Your task to perform on an android device: Open Google Chrome Image 0: 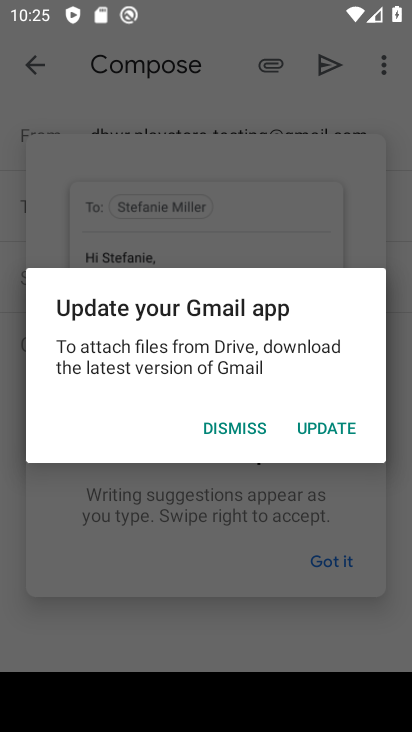
Step 0: click (249, 423)
Your task to perform on an android device: Open Google Chrome Image 1: 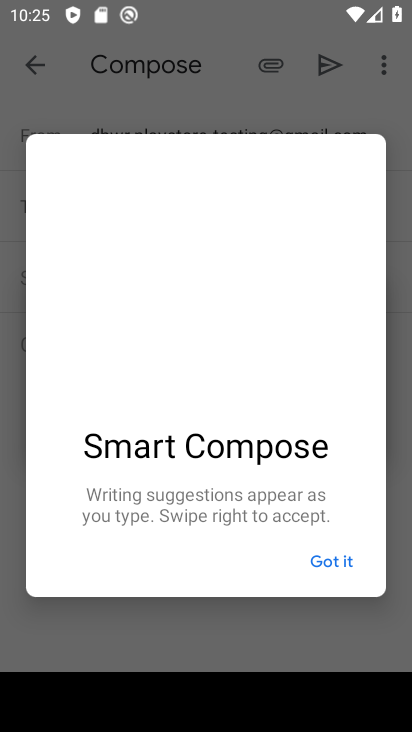
Step 1: click (322, 548)
Your task to perform on an android device: Open Google Chrome Image 2: 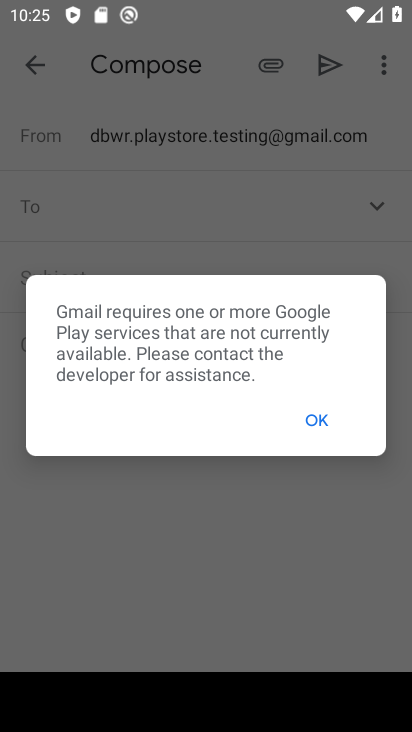
Step 2: click (306, 417)
Your task to perform on an android device: Open Google Chrome Image 3: 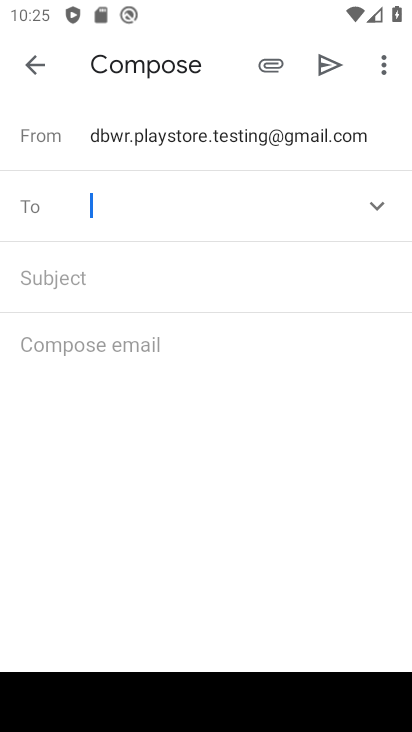
Step 3: click (22, 67)
Your task to perform on an android device: Open Google Chrome Image 4: 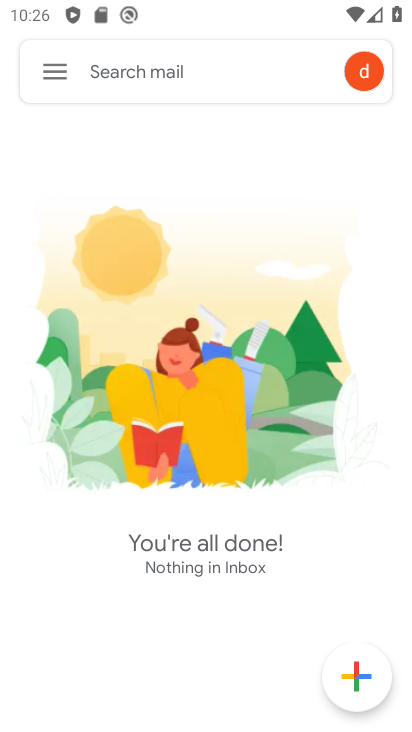
Step 4: press home button
Your task to perform on an android device: Open Google Chrome Image 5: 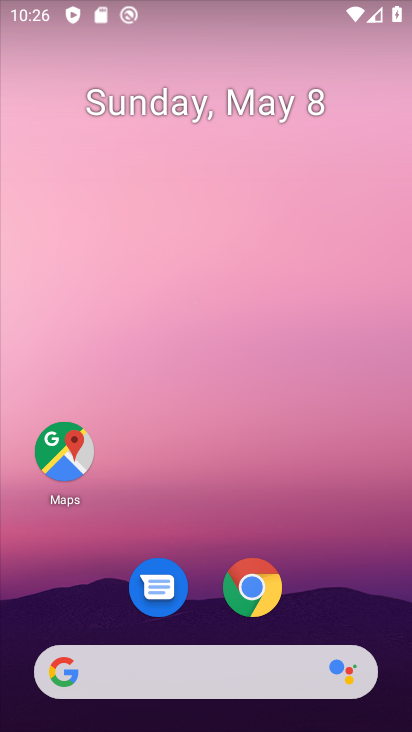
Step 5: drag from (236, 201) to (193, 101)
Your task to perform on an android device: Open Google Chrome Image 6: 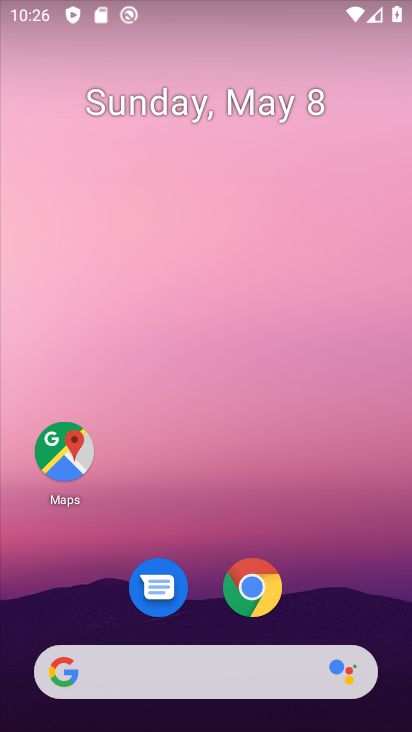
Step 6: drag from (332, 566) to (166, 0)
Your task to perform on an android device: Open Google Chrome Image 7: 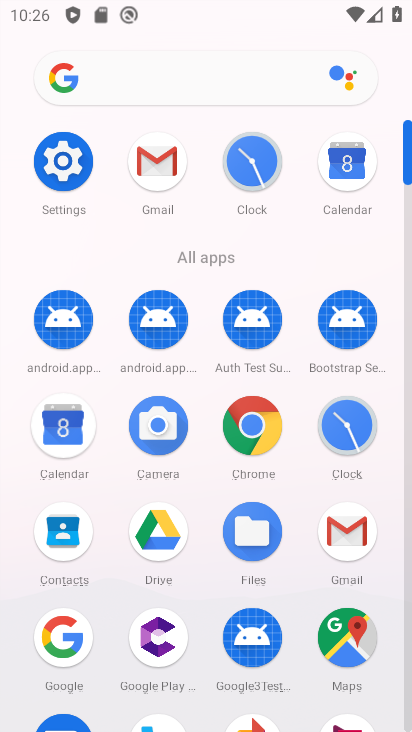
Step 7: click (55, 645)
Your task to perform on an android device: Open Google Chrome Image 8: 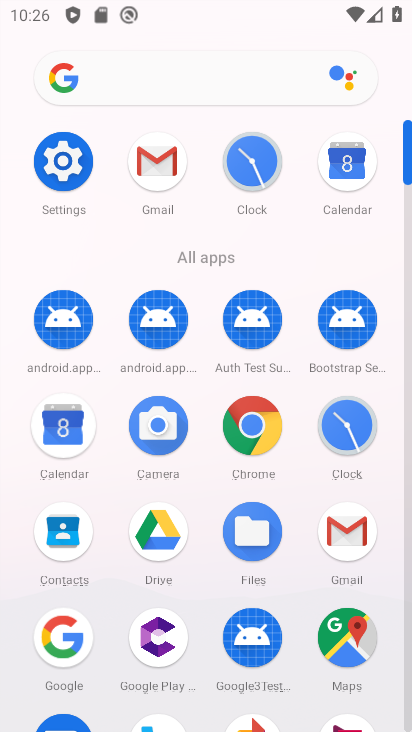
Step 8: click (56, 644)
Your task to perform on an android device: Open Google Chrome Image 9: 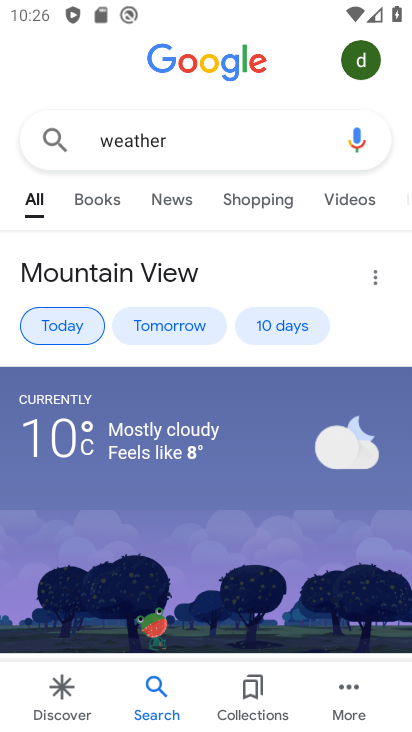
Step 9: click (344, 710)
Your task to perform on an android device: Open Google Chrome Image 10: 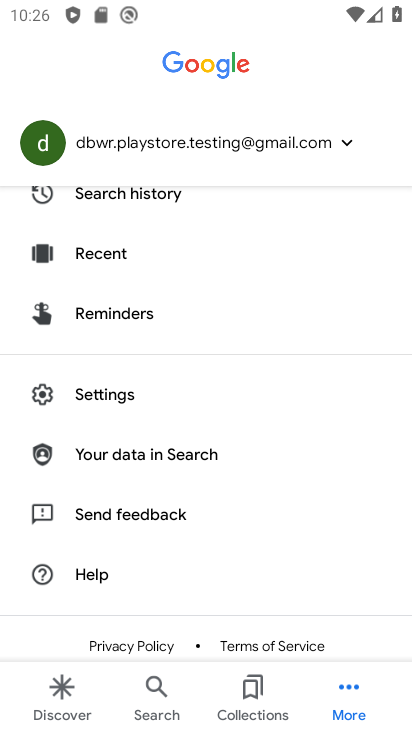
Step 10: task complete